Your task to perform on an android device: check the backup settings in the google photos Image 0: 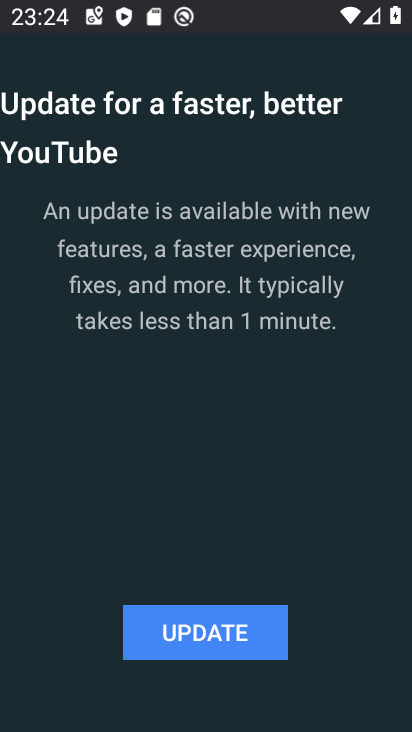
Step 0: press back button
Your task to perform on an android device: check the backup settings in the google photos Image 1: 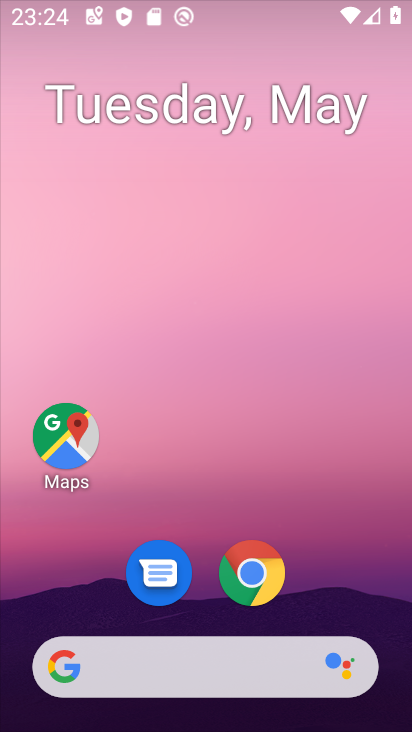
Step 1: drag from (297, 564) to (276, 163)
Your task to perform on an android device: check the backup settings in the google photos Image 2: 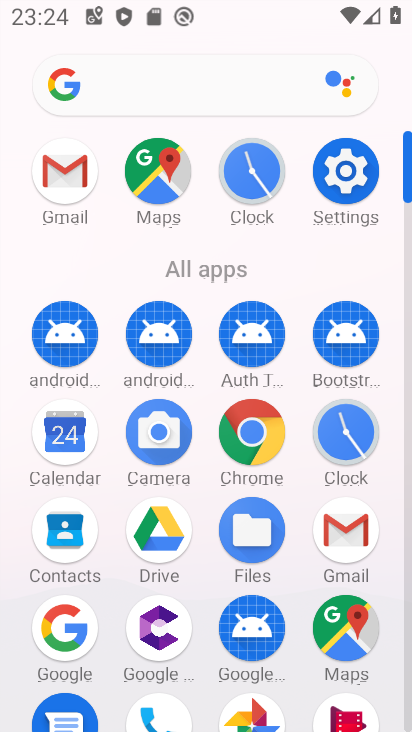
Step 2: drag from (199, 540) to (209, 427)
Your task to perform on an android device: check the backup settings in the google photos Image 3: 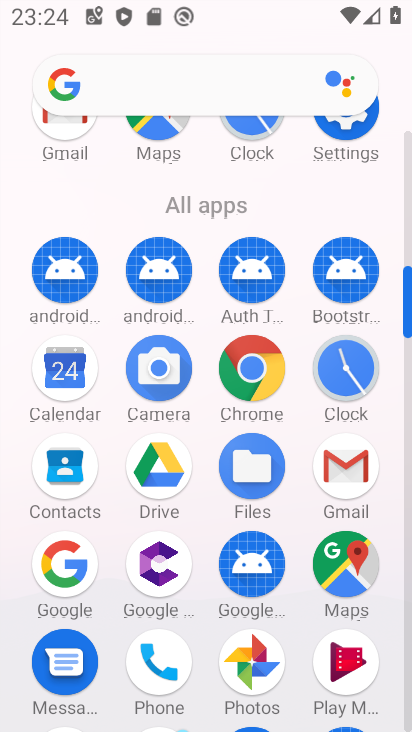
Step 3: drag from (212, 532) to (221, 322)
Your task to perform on an android device: check the backup settings in the google photos Image 4: 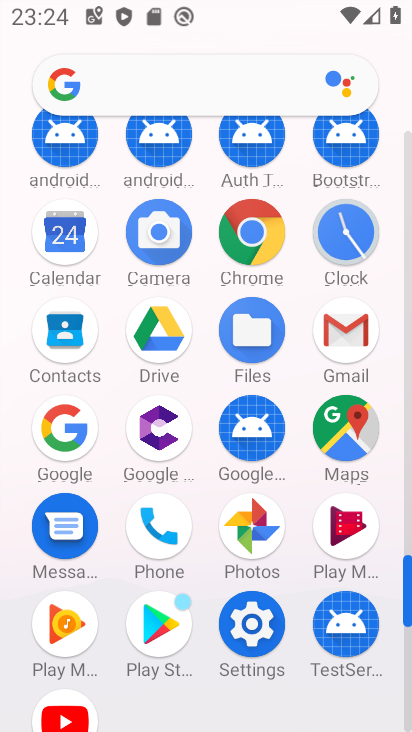
Step 4: click (255, 515)
Your task to perform on an android device: check the backup settings in the google photos Image 5: 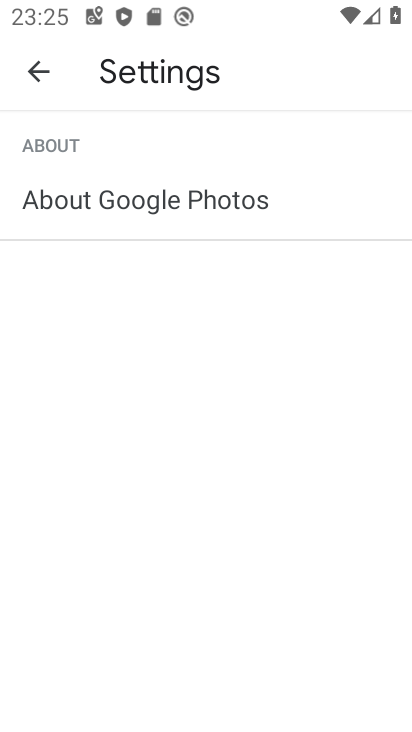
Step 5: click (59, 71)
Your task to perform on an android device: check the backup settings in the google photos Image 6: 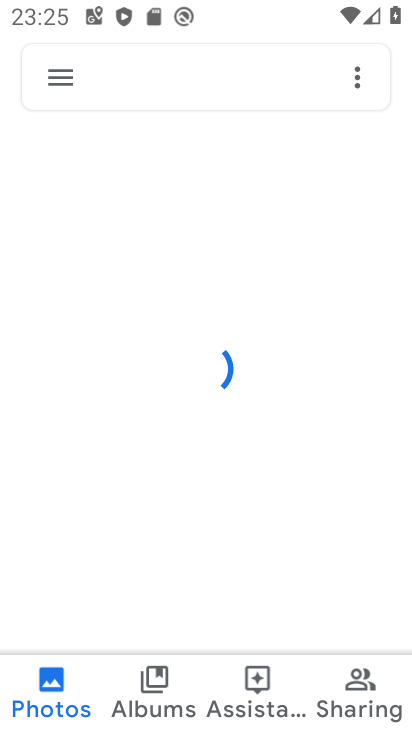
Step 6: drag from (353, 675) to (225, 105)
Your task to perform on an android device: check the backup settings in the google photos Image 7: 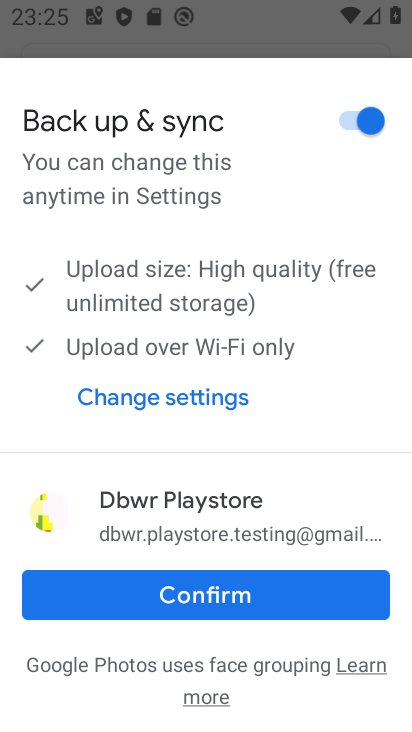
Step 7: click (60, 90)
Your task to perform on an android device: check the backup settings in the google photos Image 8: 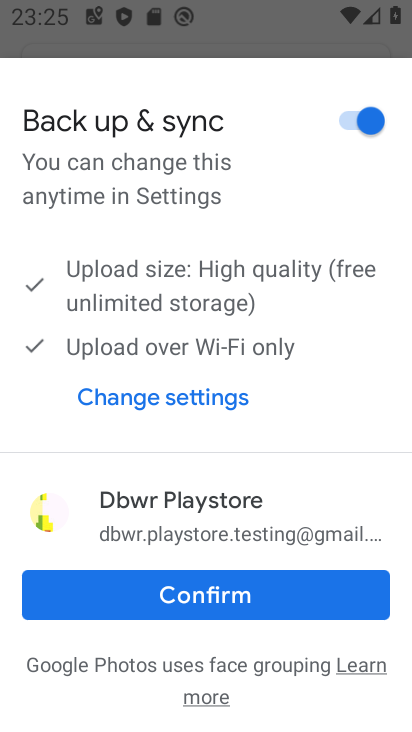
Step 8: click (204, 595)
Your task to perform on an android device: check the backup settings in the google photos Image 9: 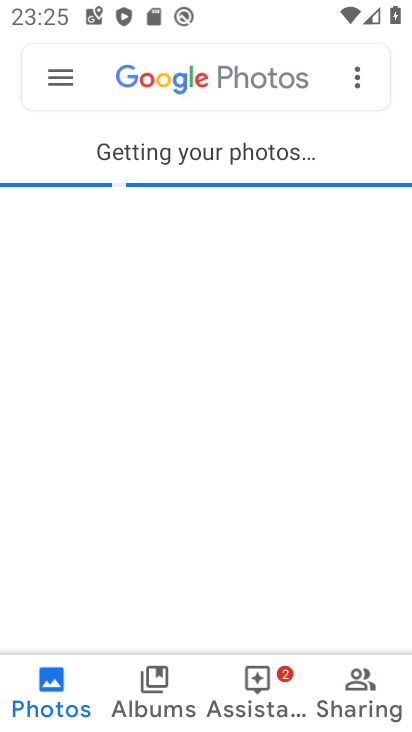
Step 9: click (58, 79)
Your task to perform on an android device: check the backup settings in the google photos Image 10: 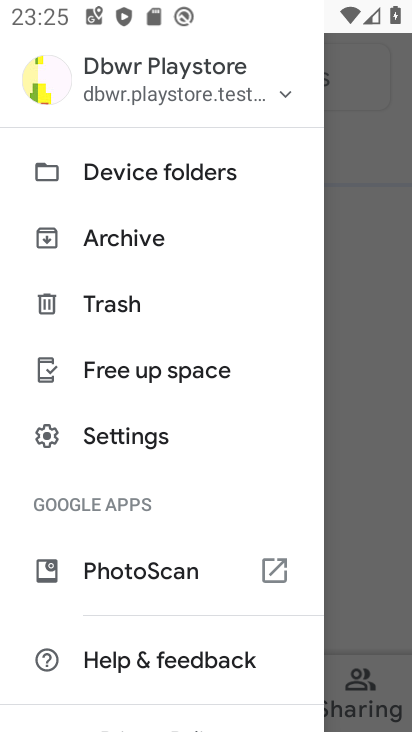
Step 10: click (124, 431)
Your task to perform on an android device: check the backup settings in the google photos Image 11: 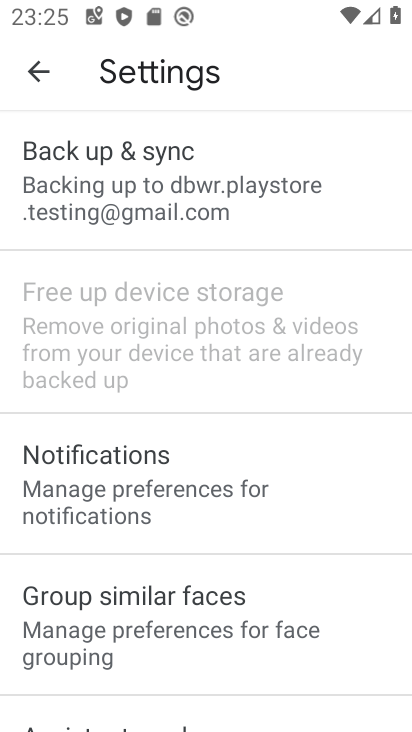
Step 11: task complete